Your task to perform on an android device: Clear all items from cart on amazon. Search for amazon basics triple a on amazon, select the first entry, add it to the cart, then select checkout. Image 0: 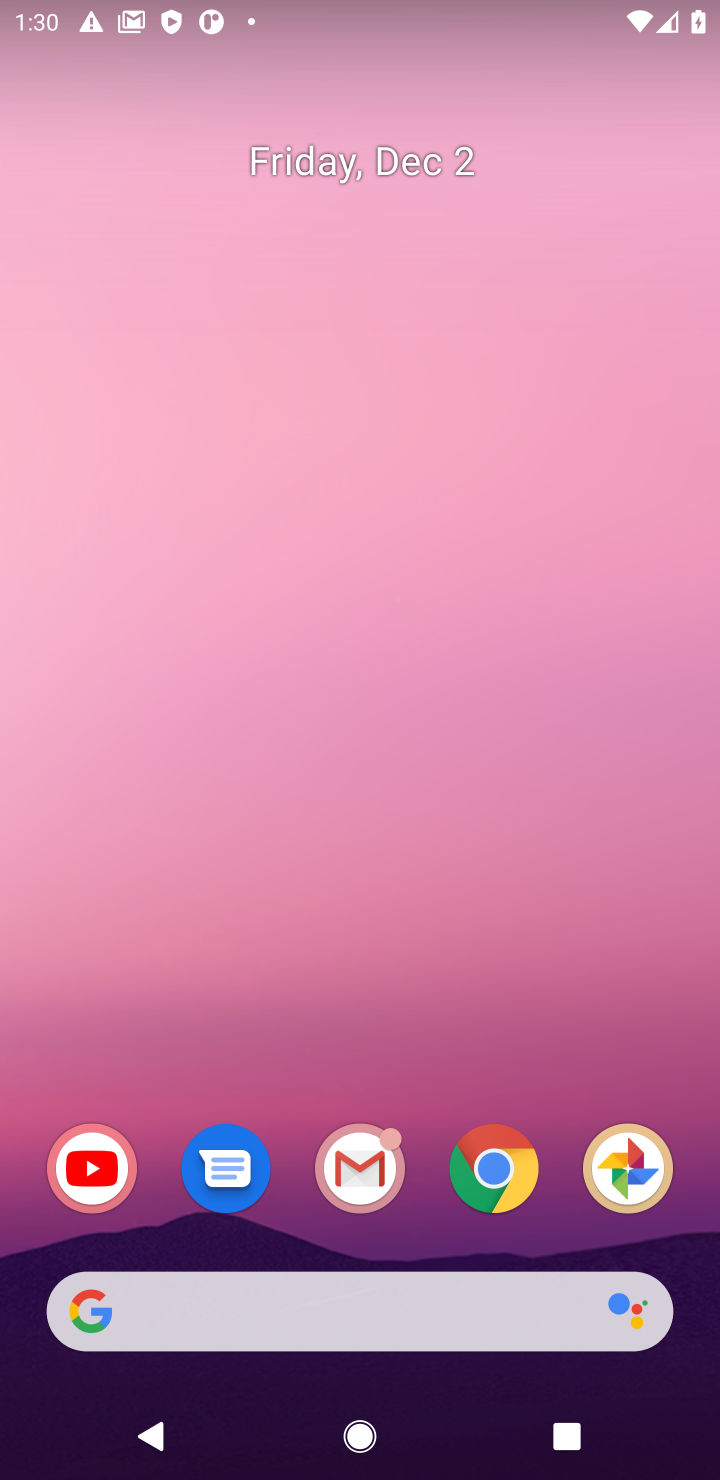
Step 0: click (507, 1203)
Your task to perform on an android device: Clear all items from cart on amazon. Search for amazon basics triple a on amazon, select the first entry, add it to the cart, then select checkout. Image 1: 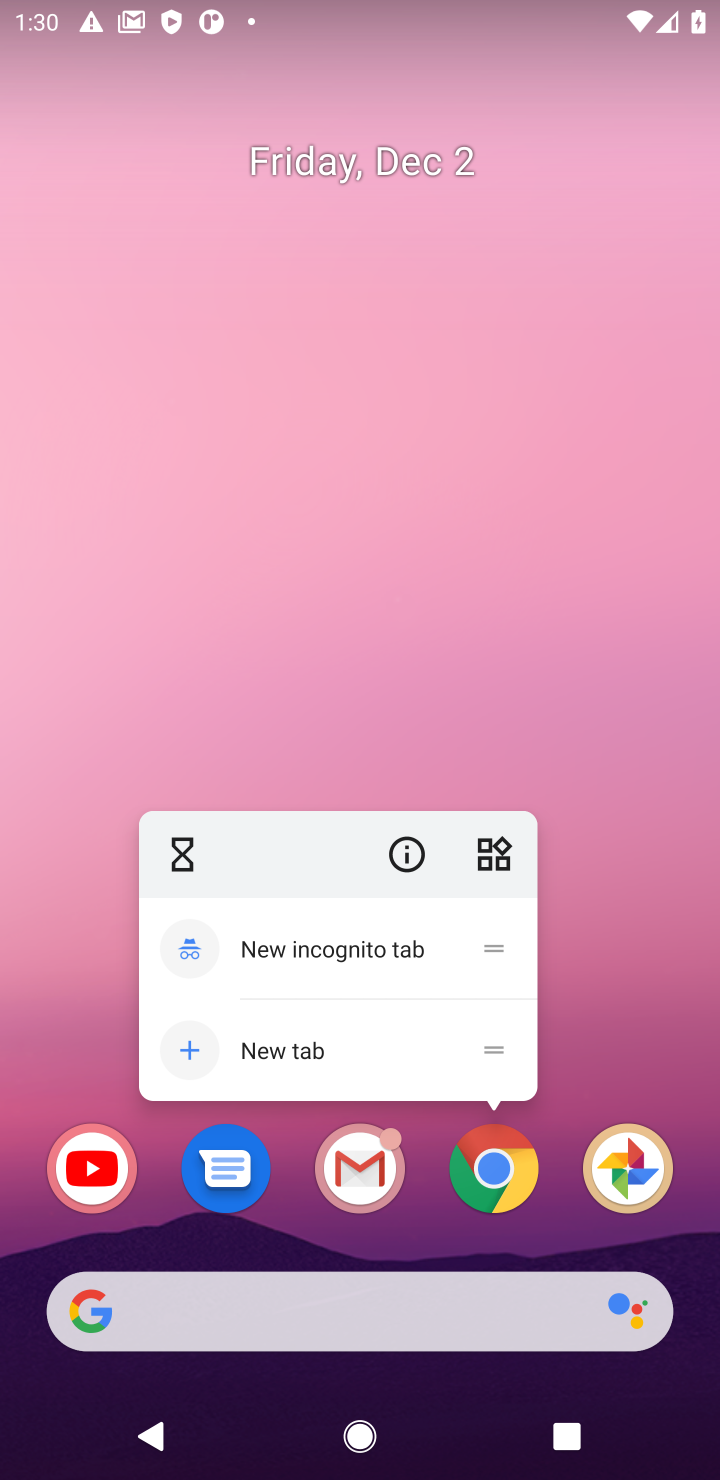
Step 1: click (493, 1167)
Your task to perform on an android device: Clear all items from cart on amazon. Search for amazon basics triple a on amazon, select the first entry, add it to the cart, then select checkout. Image 2: 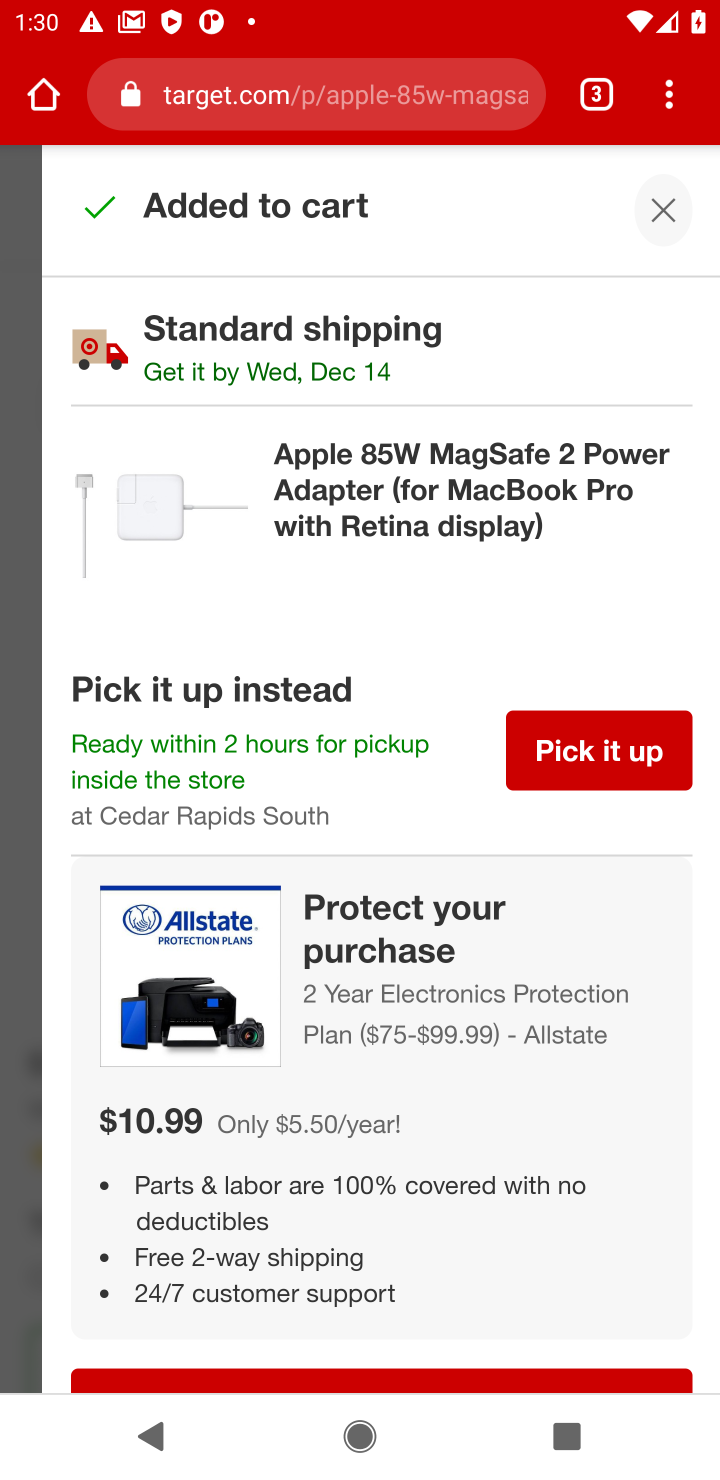
Step 2: click (245, 100)
Your task to perform on an android device: Clear all items from cart on amazon. Search for amazon basics triple a on amazon, select the first entry, add it to the cart, then select checkout. Image 3: 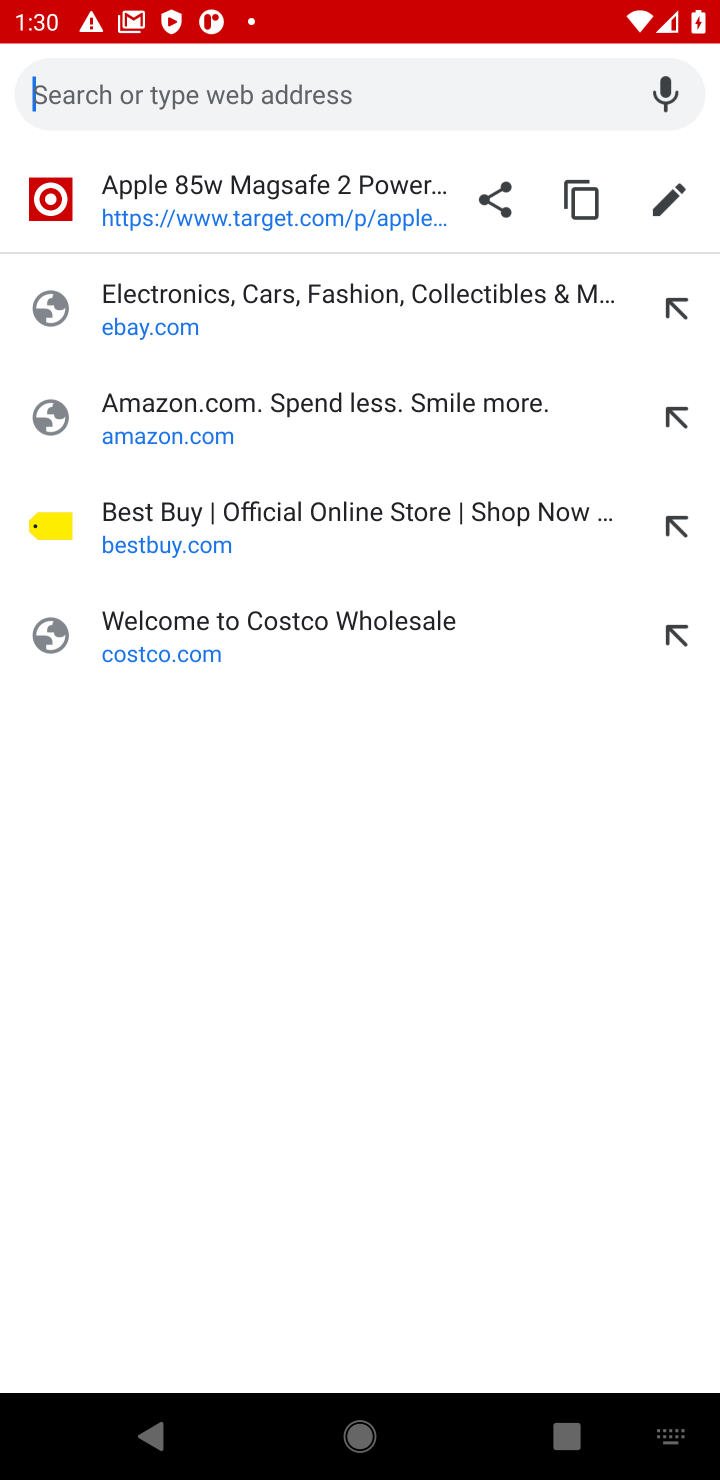
Step 3: click (158, 409)
Your task to perform on an android device: Clear all items from cart on amazon. Search for amazon basics triple a on amazon, select the first entry, add it to the cart, then select checkout. Image 4: 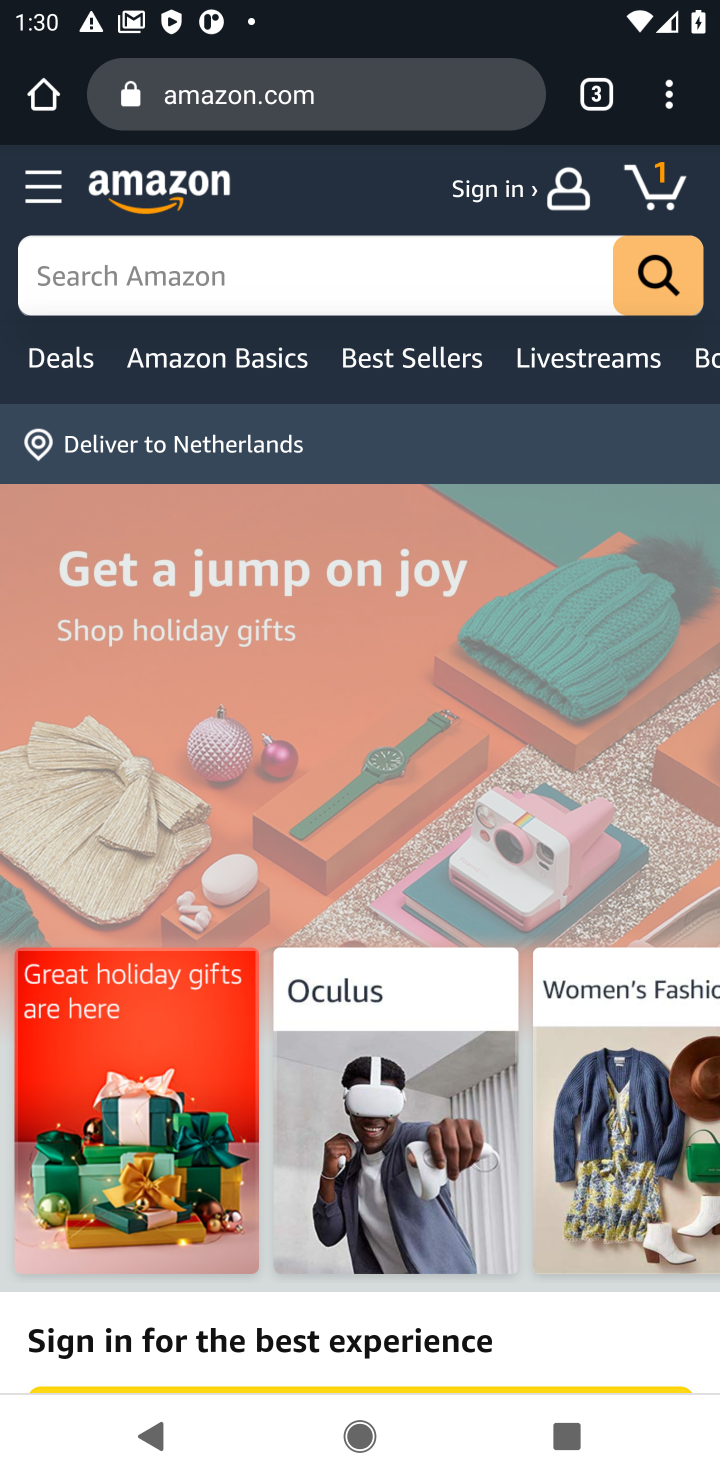
Step 4: click (660, 187)
Your task to perform on an android device: Clear all items from cart on amazon. Search for amazon basics triple a on amazon, select the first entry, add it to the cart, then select checkout. Image 5: 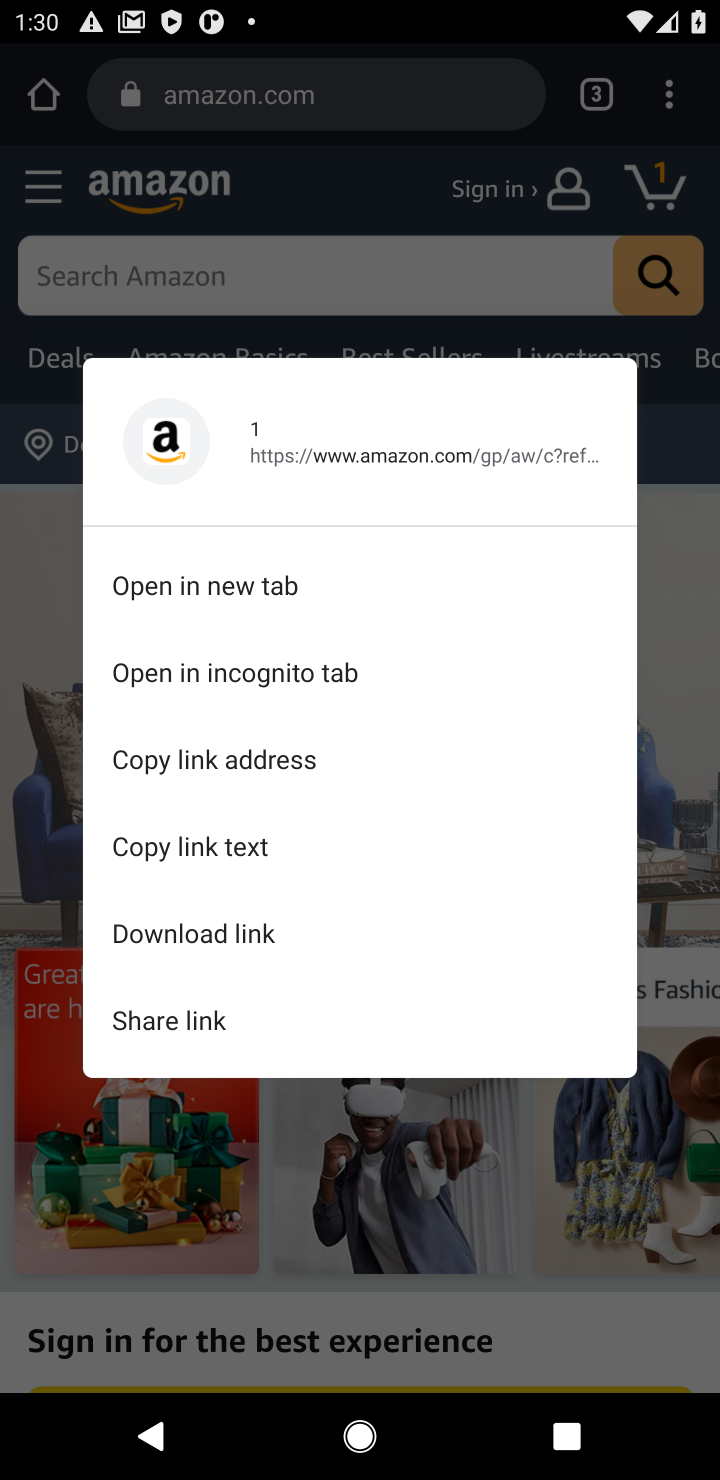
Step 5: click (660, 187)
Your task to perform on an android device: Clear all items from cart on amazon. Search for amazon basics triple a on amazon, select the first entry, add it to the cart, then select checkout. Image 6: 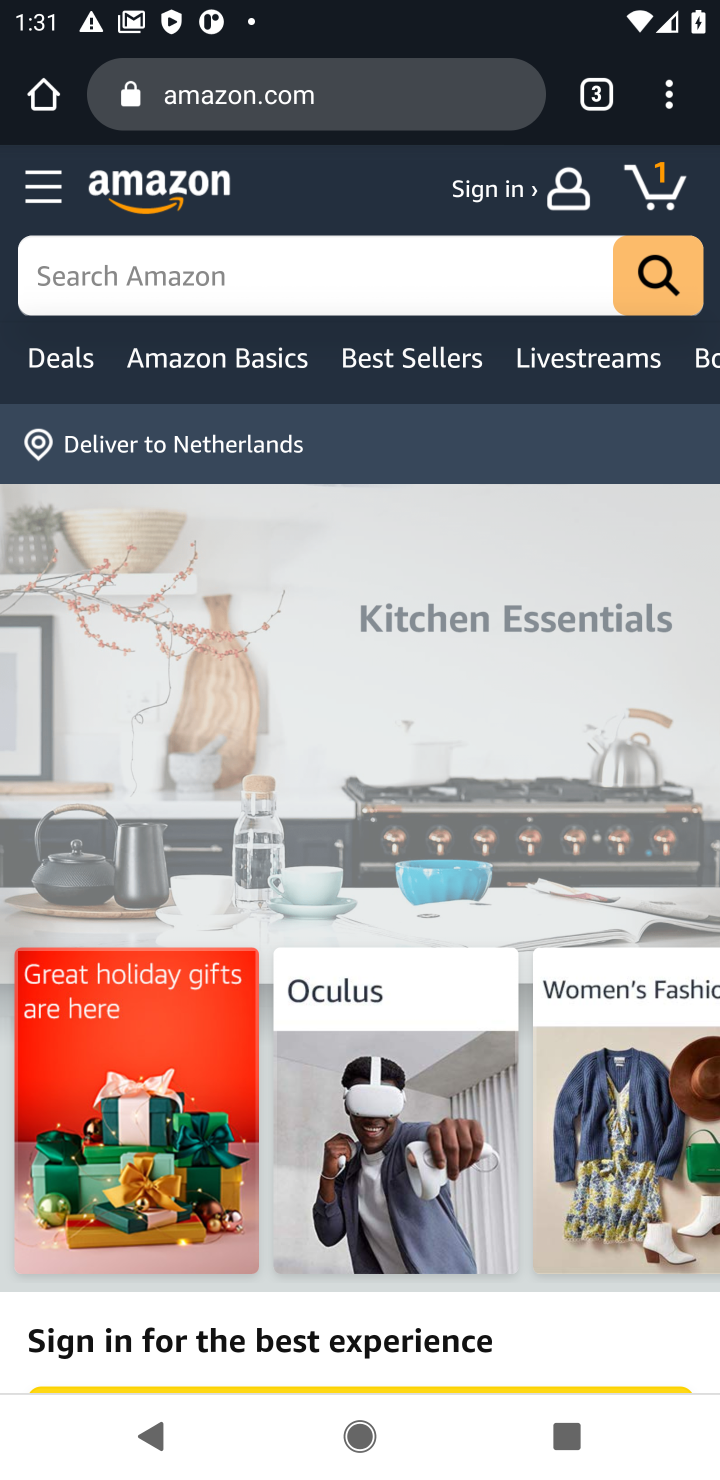
Step 6: click (666, 194)
Your task to perform on an android device: Clear all items from cart on amazon. Search for amazon basics triple a on amazon, select the first entry, add it to the cart, then select checkout. Image 7: 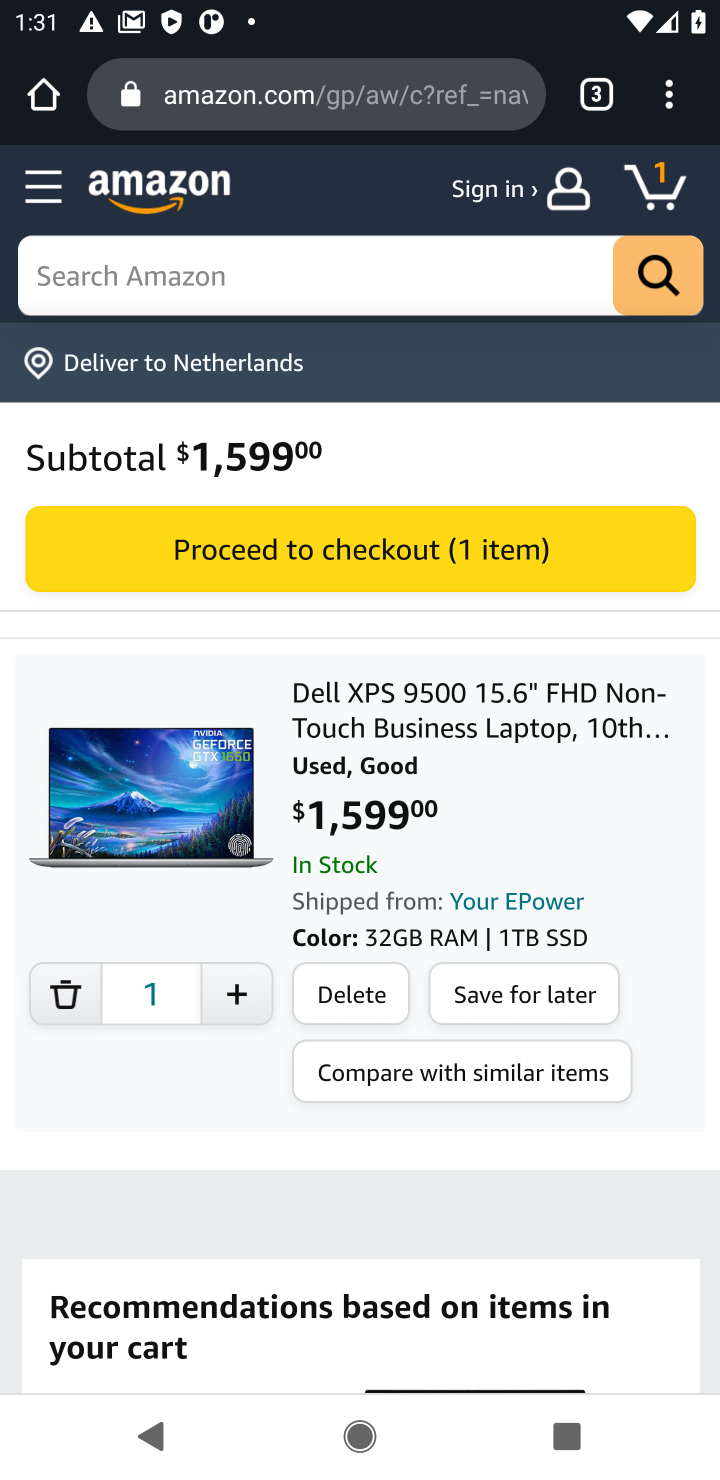
Step 7: click (329, 997)
Your task to perform on an android device: Clear all items from cart on amazon. Search for amazon basics triple a on amazon, select the first entry, add it to the cart, then select checkout. Image 8: 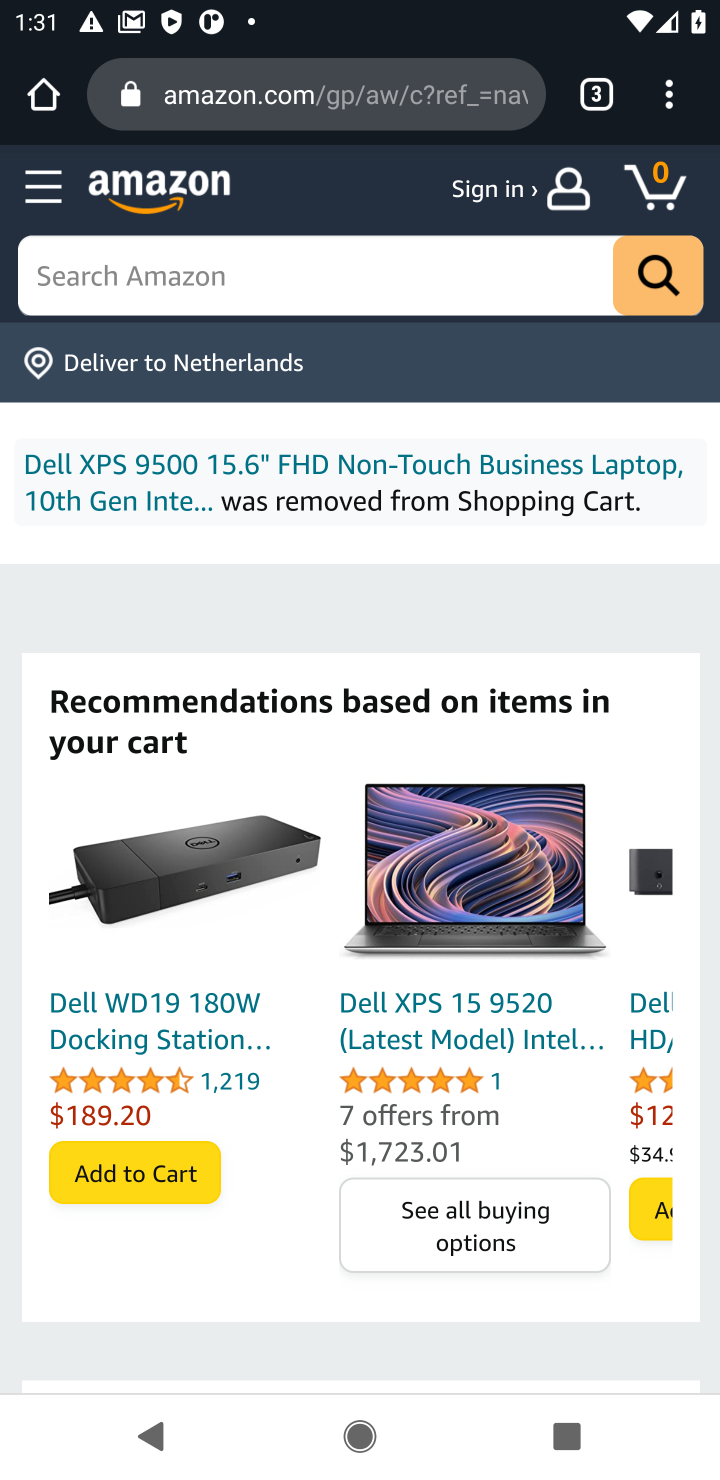
Step 8: click (106, 280)
Your task to perform on an android device: Clear all items from cart on amazon. Search for amazon basics triple a on amazon, select the first entry, add it to the cart, then select checkout. Image 9: 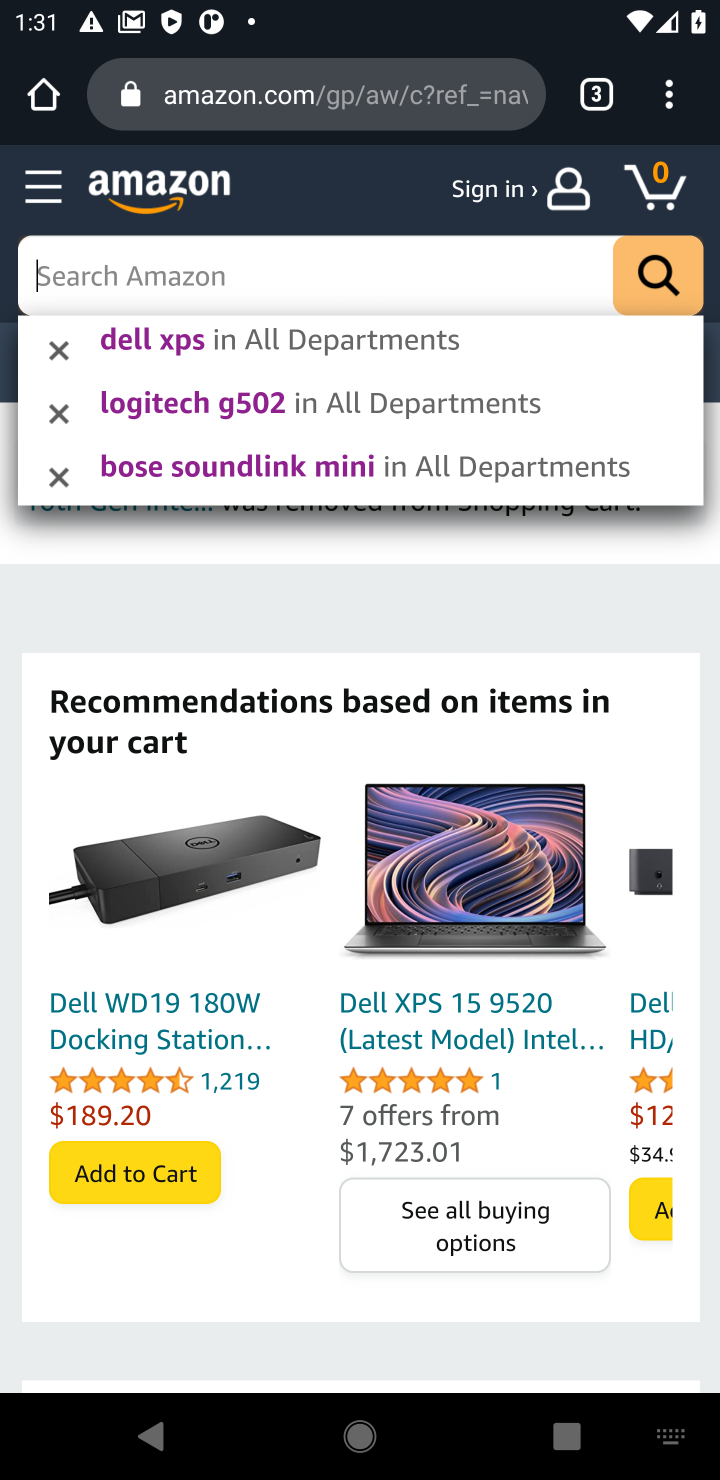
Step 9: type "amazon basics triple a"
Your task to perform on an android device: Clear all items from cart on amazon. Search for amazon basics triple a on amazon, select the first entry, add it to the cart, then select checkout. Image 10: 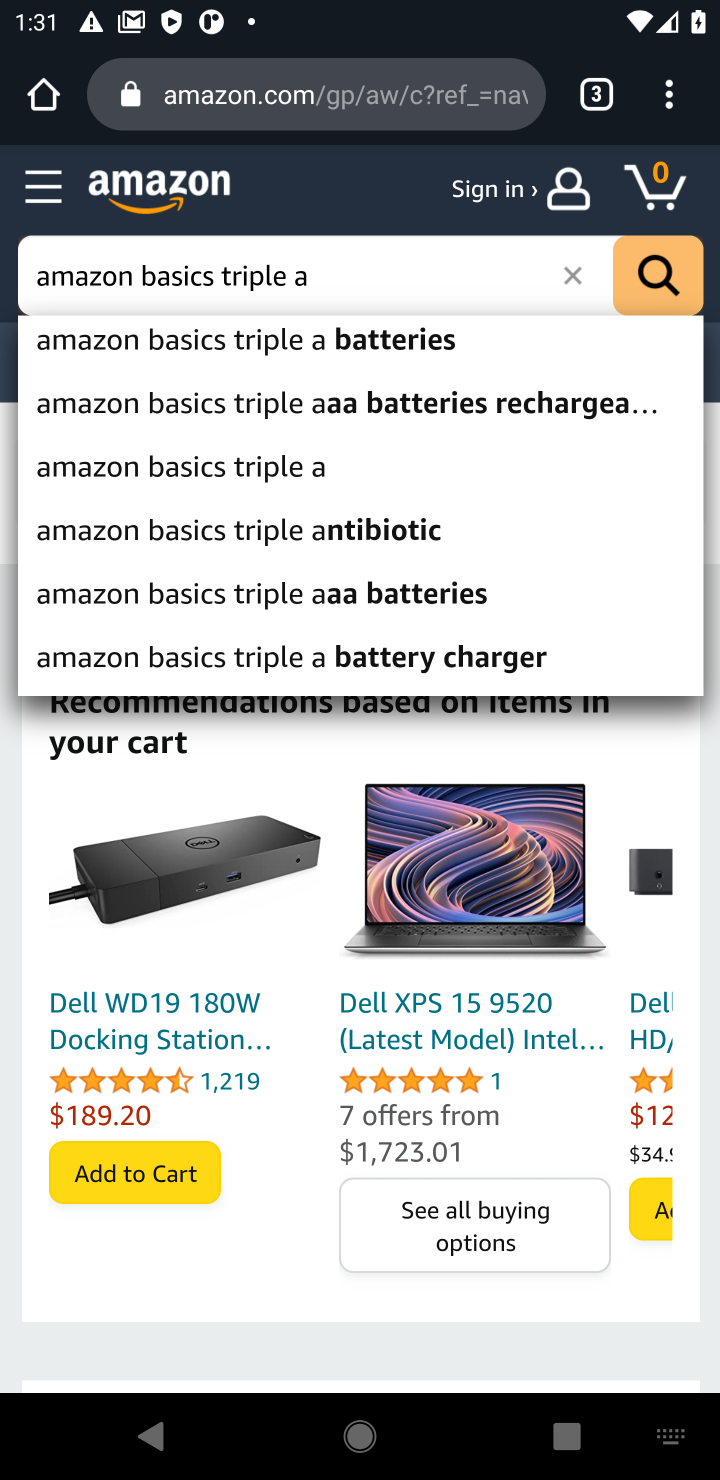
Step 10: click (266, 346)
Your task to perform on an android device: Clear all items from cart on amazon. Search for amazon basics triple a on amazon, select the first entry, add it to the cart, then select checkout. Image 11: 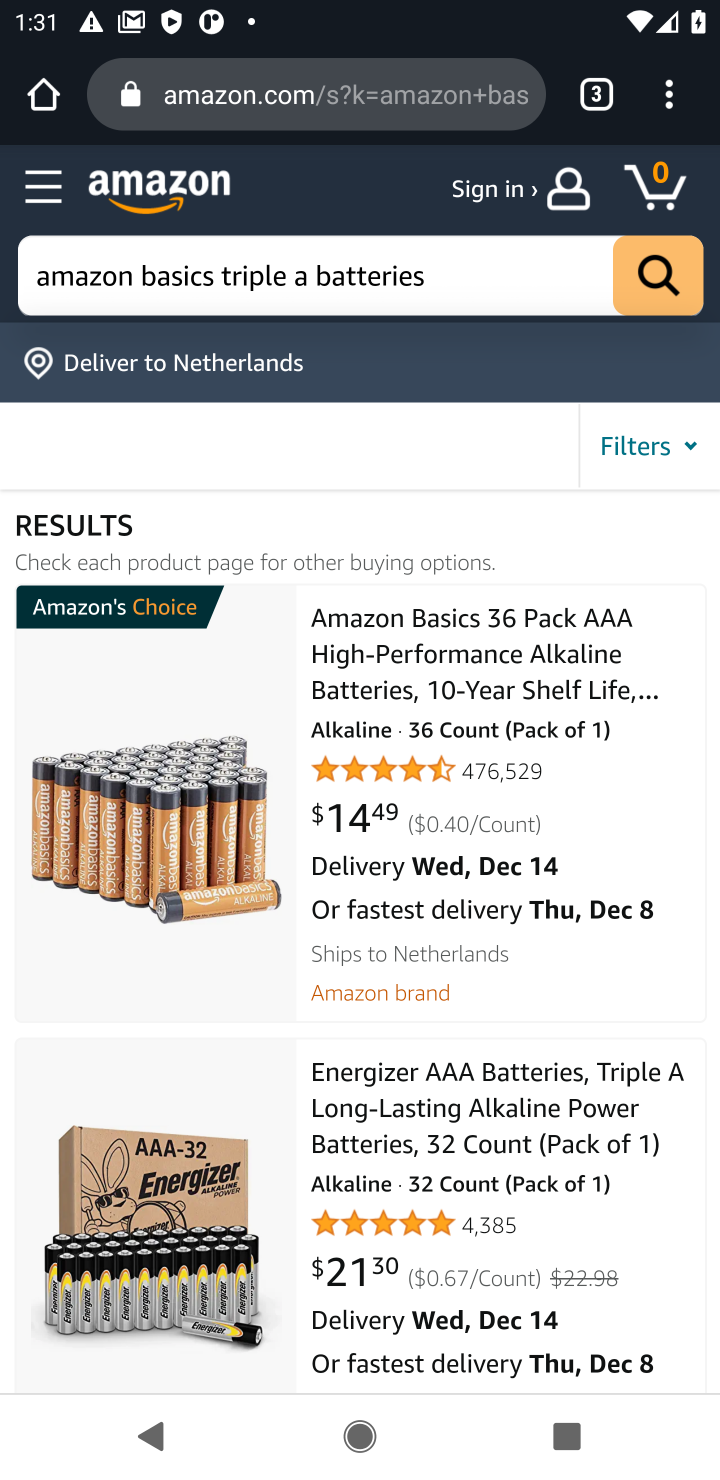
Step 11: click (394, 716)
Your task to perform on an android device: Clear all items from cart on amazon. Search for amazon basics triple a on amazon, select the first entry, add it to the cart, then select checkout. Image 12: 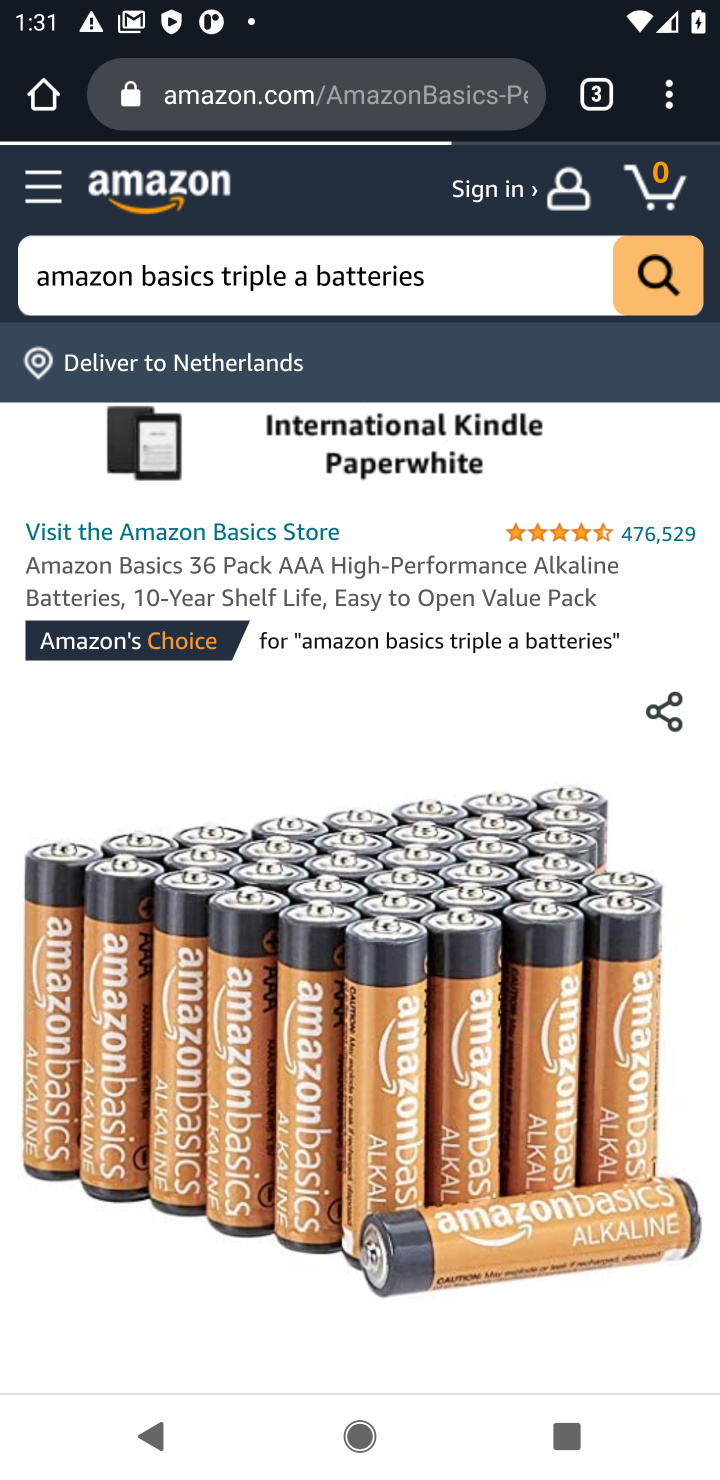
Step 12: drag from (327, 936) to (302, 608)
Your task to perform on an android device: Clear all items from cart on amazon. Search for amazon basics triple a on amazon, select the first entry, add it to the cart, then select checkout. Image 13: 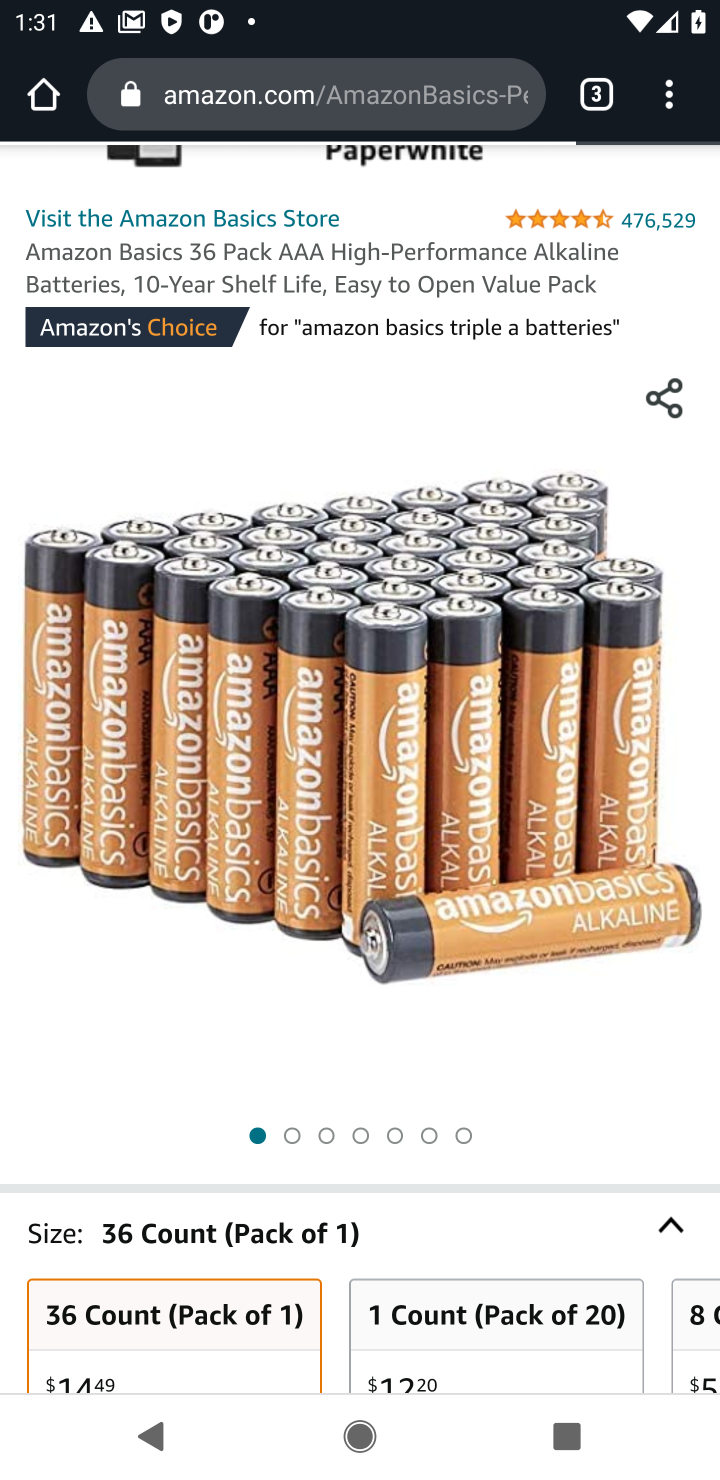
Step 13: drag from (312, 1026) to (276, 461)
Your task to perform on an android device: Clear all items from cart on amazon. Search for amazon basics triple a on amazon, select the first entry, add it to the cart, then select checkout. Image 14: 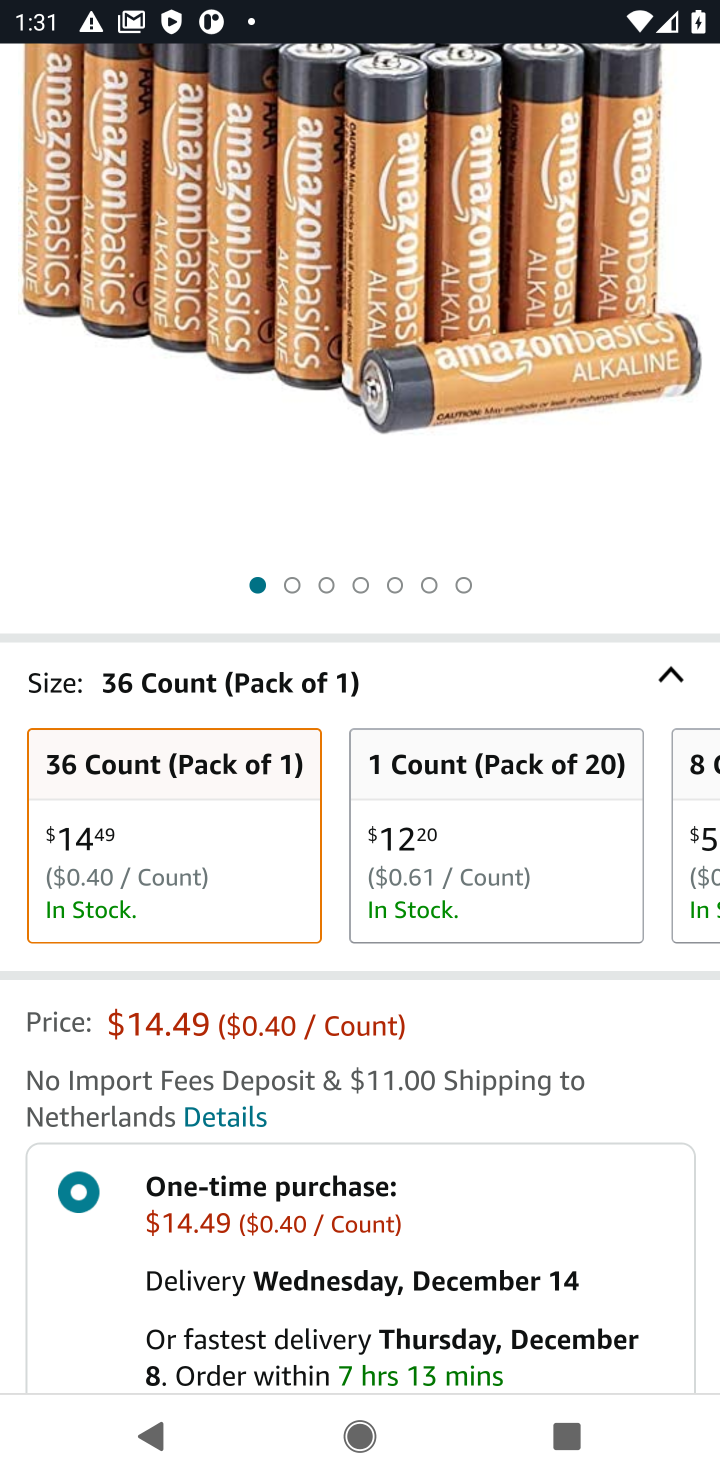
Step 14: drag from (306, 1000) to (298, 414)
Your task to perform on an android device: Clear all items from cart on amazon. Search for amazon basics triple a on amazon, select the first entry, add it to the cart, then select checkout. Image 15: 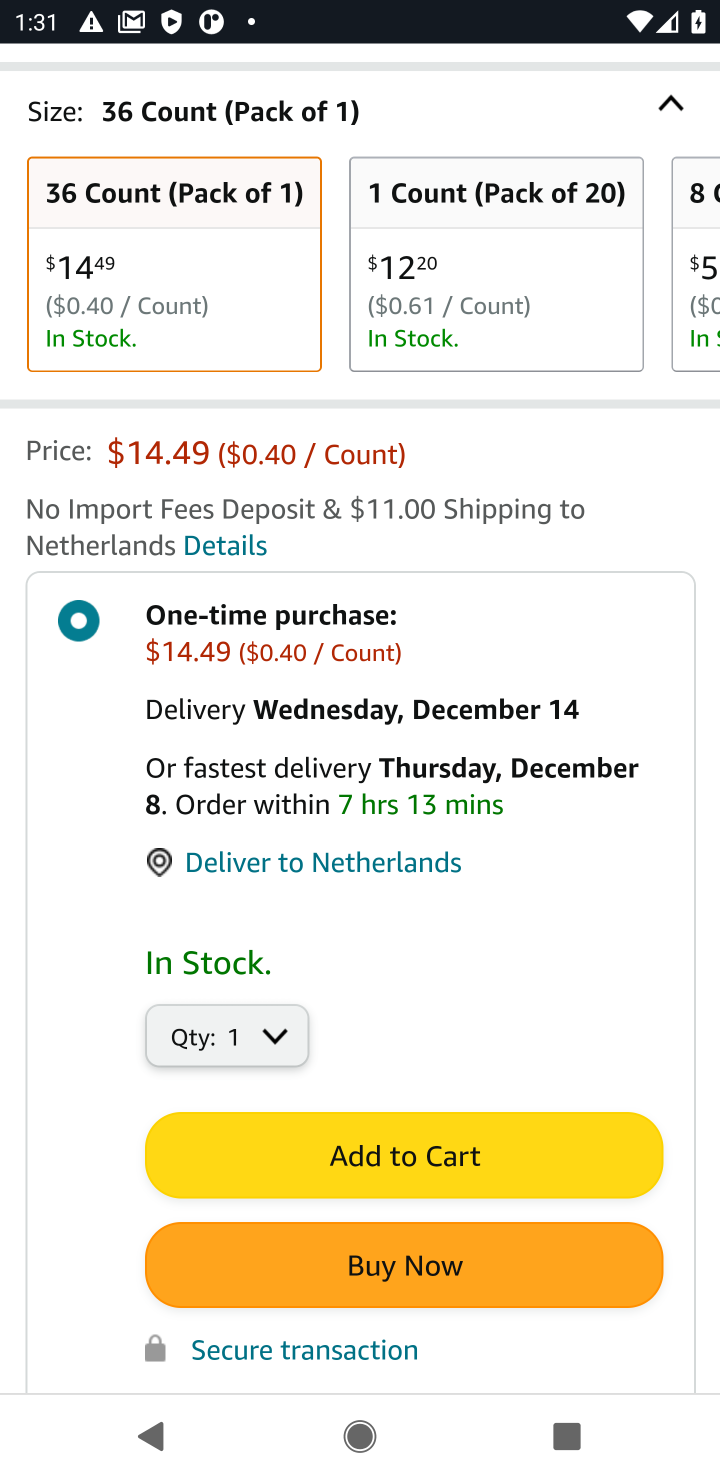
Step 15: click (341, 1153)
Your task to perform on an android device: Clear all items from cart on amazon. Search for amazon basics triple a on amazon, select the first entry, add it to the cart, then select checkout. Image 16: 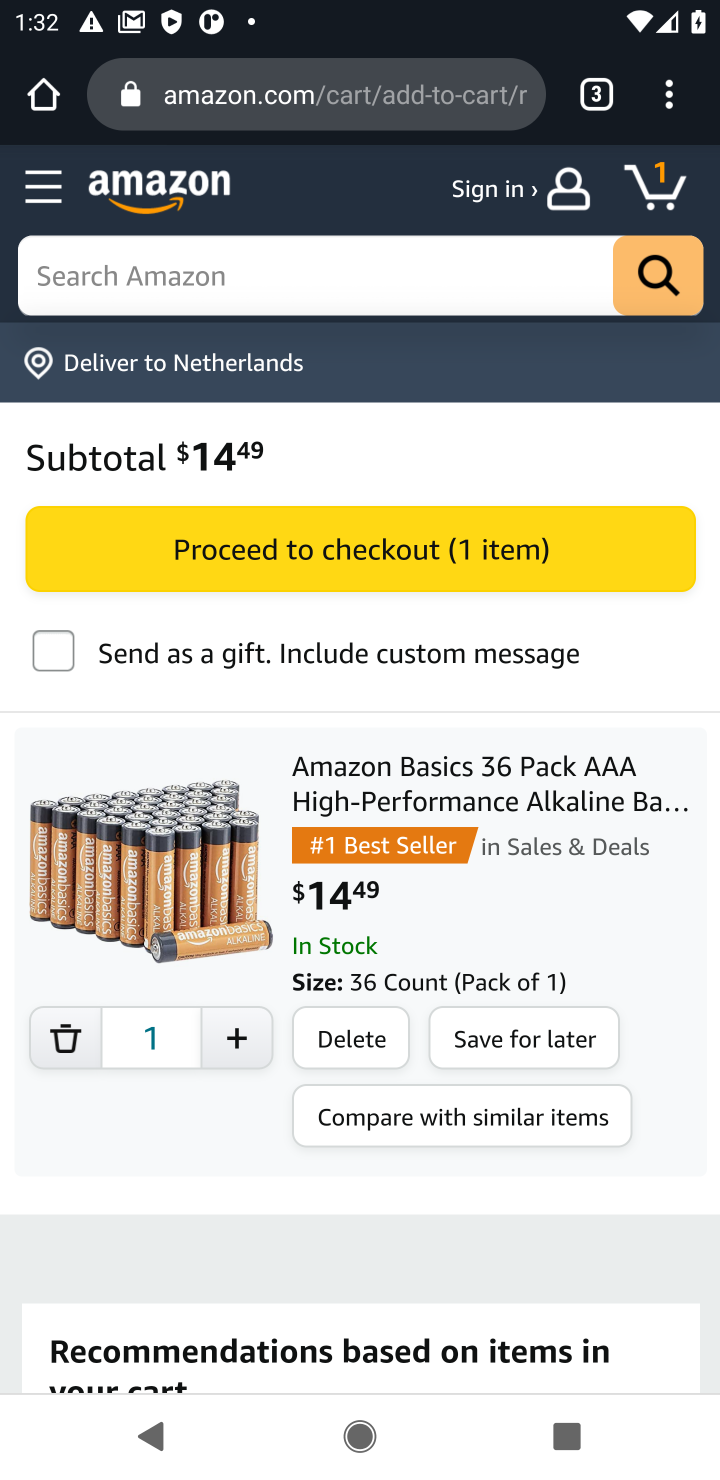
Step 16: click (329, 543)
Your task to perform on an android device: Clear all items from cart on amazon. Search for amazon basics triple a on amazon, select the first entry, add it to the cart, then select checkout. Image 17: 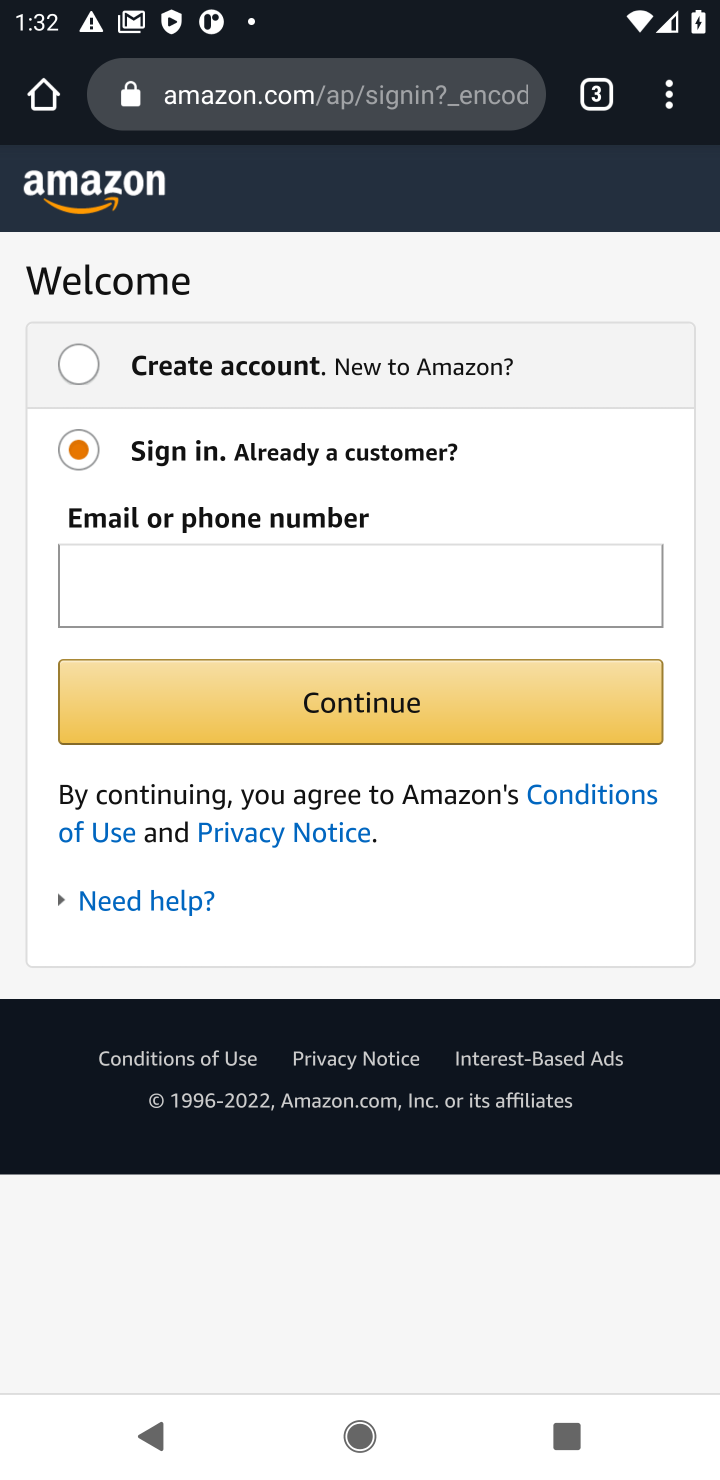
Step 17: task complete